Your task to perform on an android device: Show me the alarms in the clock app Image 0: 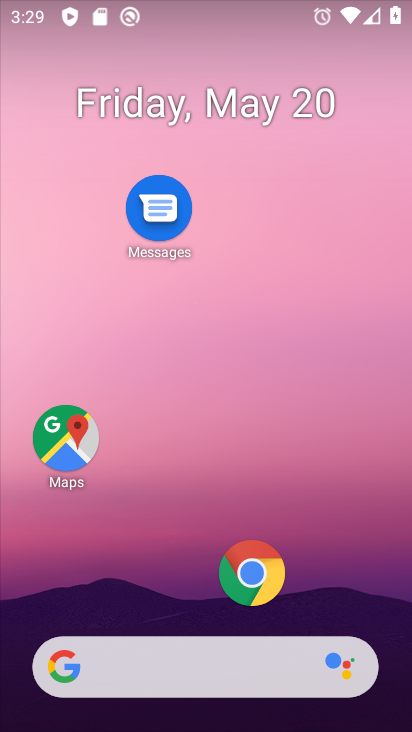
Step 0: drag from (153, 620) to (264, 1)
Your task to perform on an android device: Show me the alarms in the clock app Image 1: 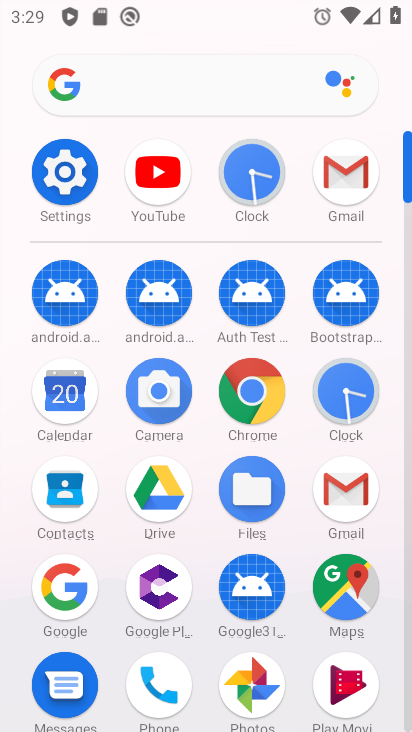
Step 1: click (340, 386)
Your task to perform on an android device: Show me the alarms in the clock app Image 2: 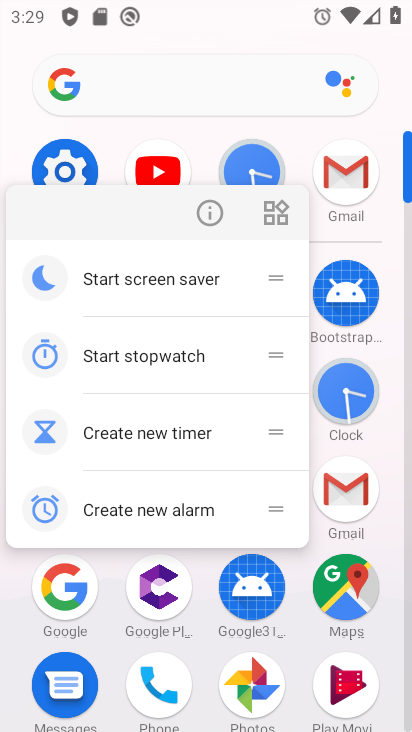
Step 2: click (352, 400)
Your task to perform on an android device: Show me the alarms in the clock app Image 3: 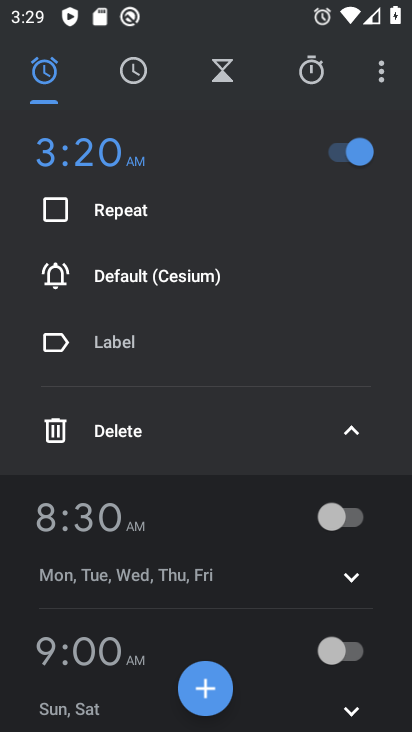
Step 3: task complete